Your task to perform on an android device: Add "acer predator" to the cart on bestbuy.com Image 0: 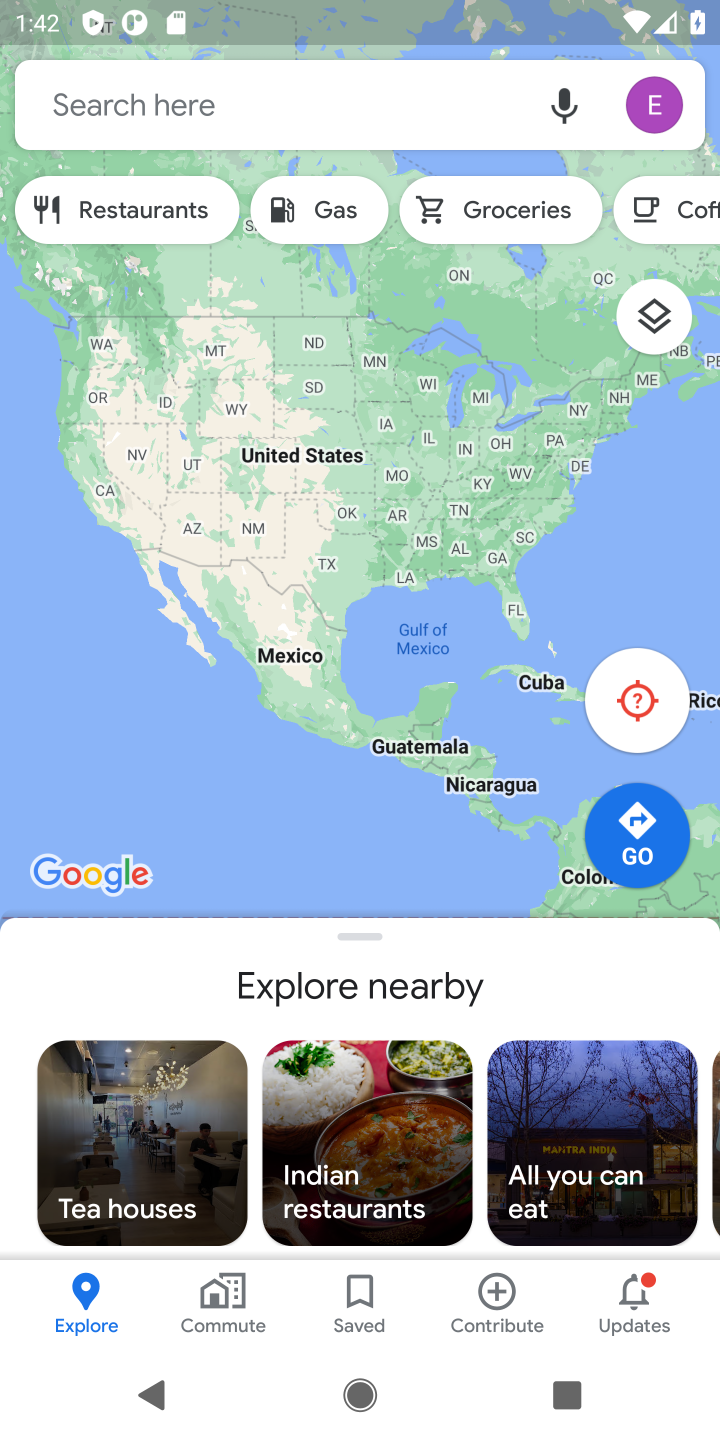
Step 0: press home button
Your task to perform on an android device: Add "acer predator" to the cart on bestbuy.com Image 1: 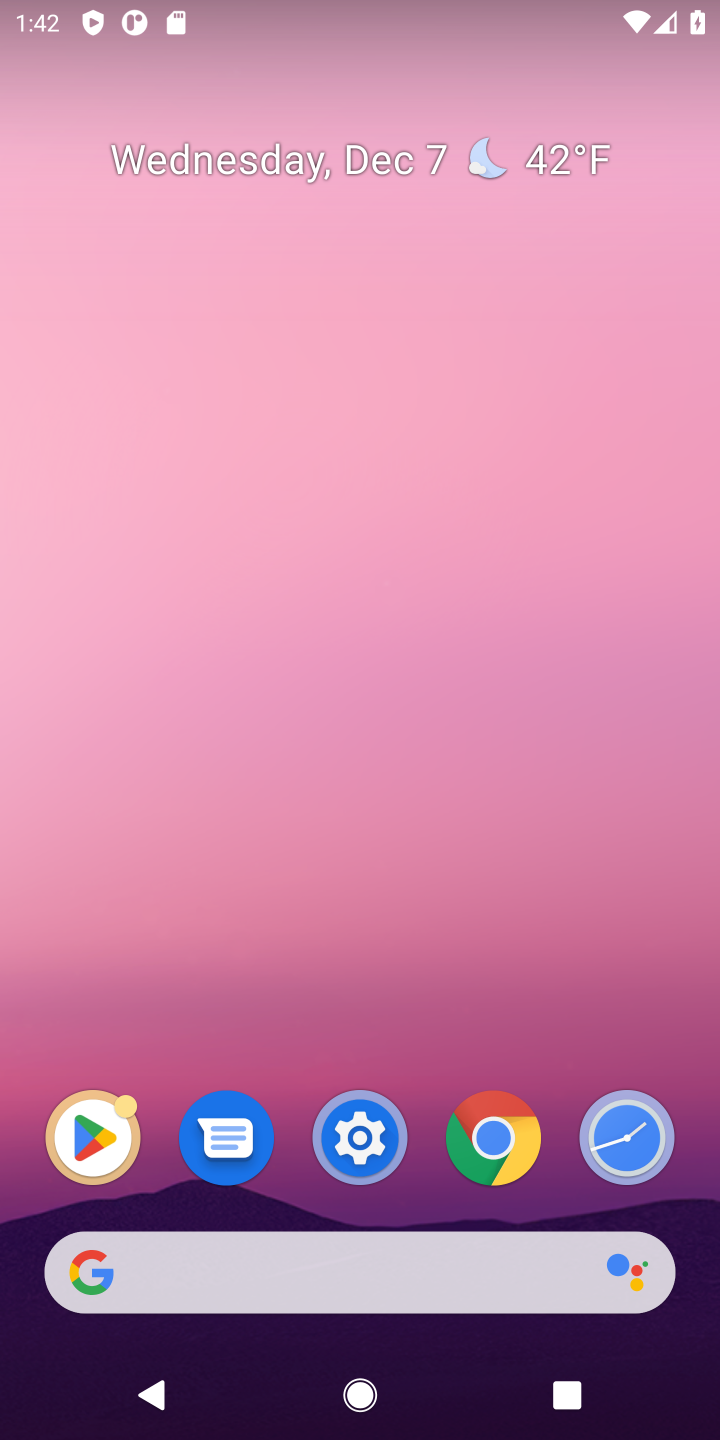
Step 1: click (339, 1256)
Your task to perform on an android device: Add "acer predator" to the cart on bestbuy.com Image 2: 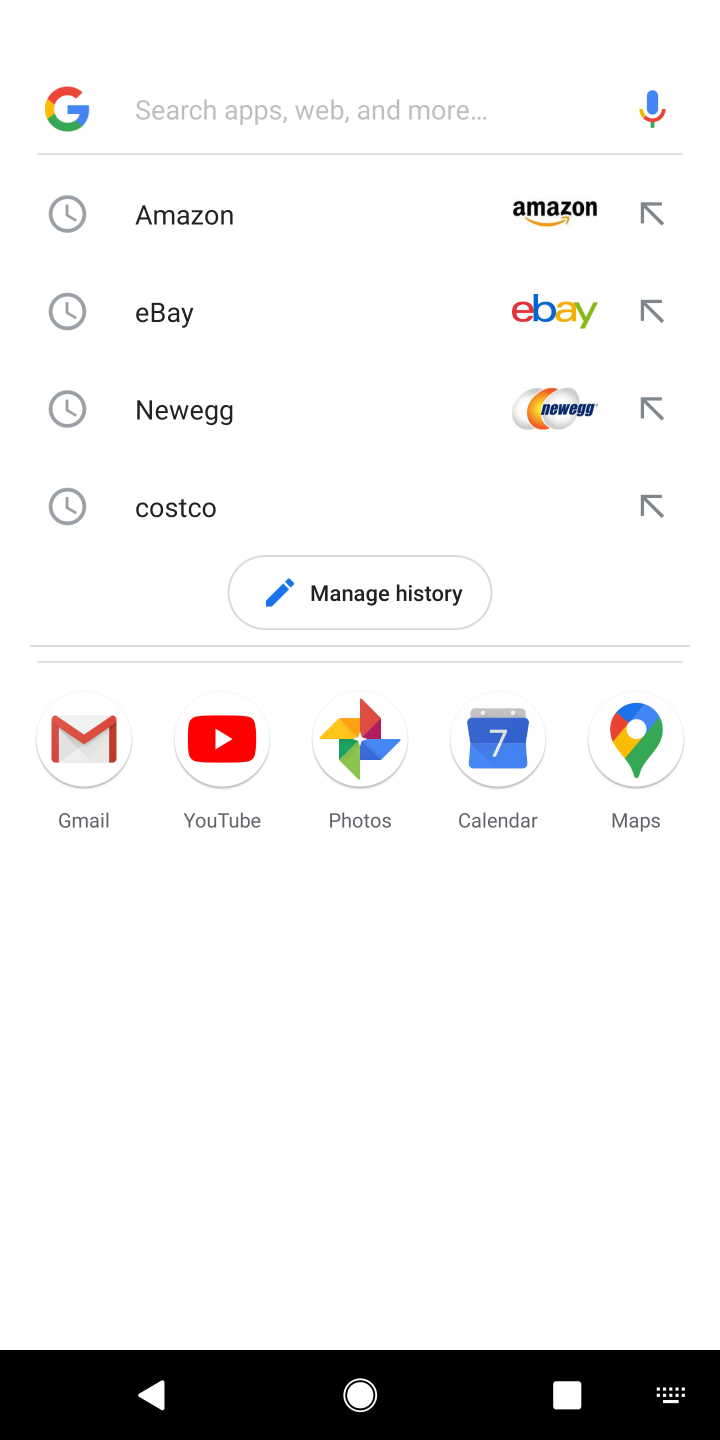
Step 2: type "bestbuy"
Your task to perform on an android device: Add "acer predator" to the cart on bestbuy.com Image 3: 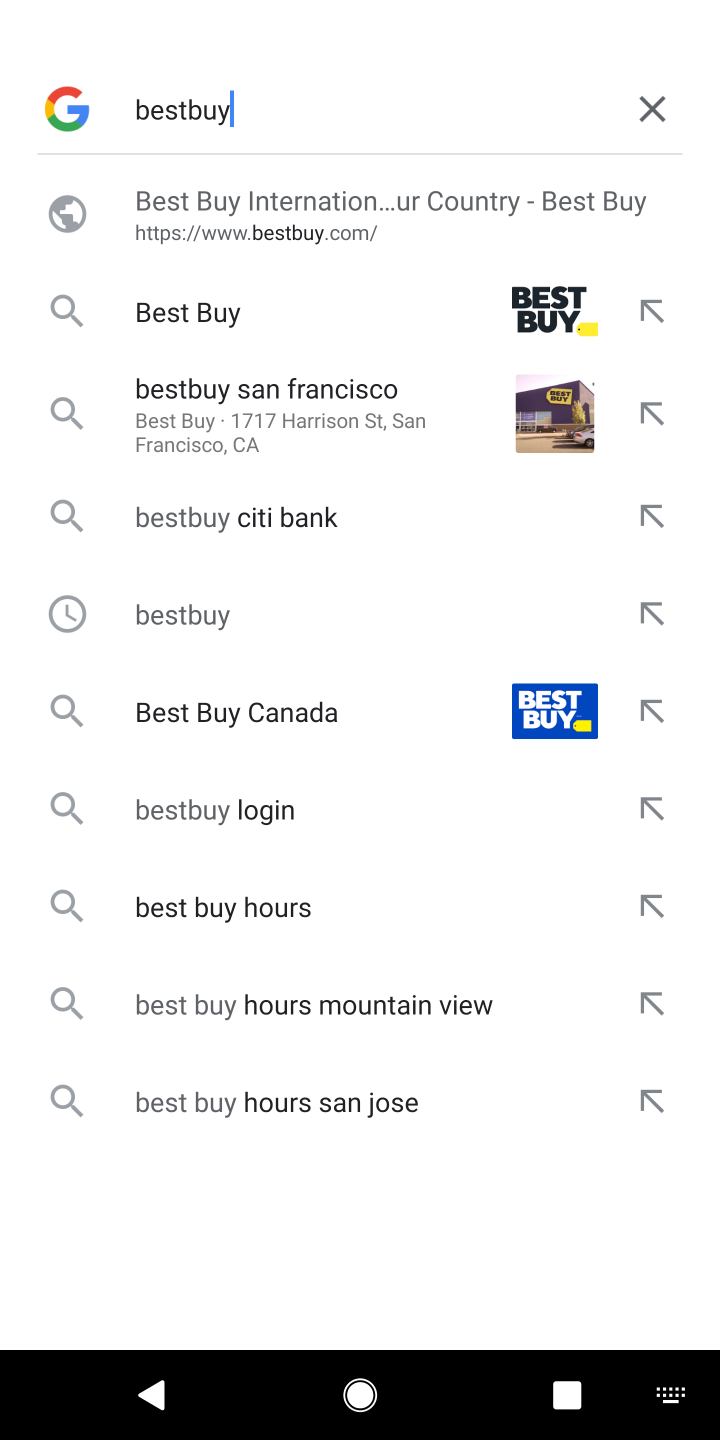
Step 3: click (267, 251)
Your task to perform on an android device: Add "acer predator" to the cart on bestbuy.com Image 4: 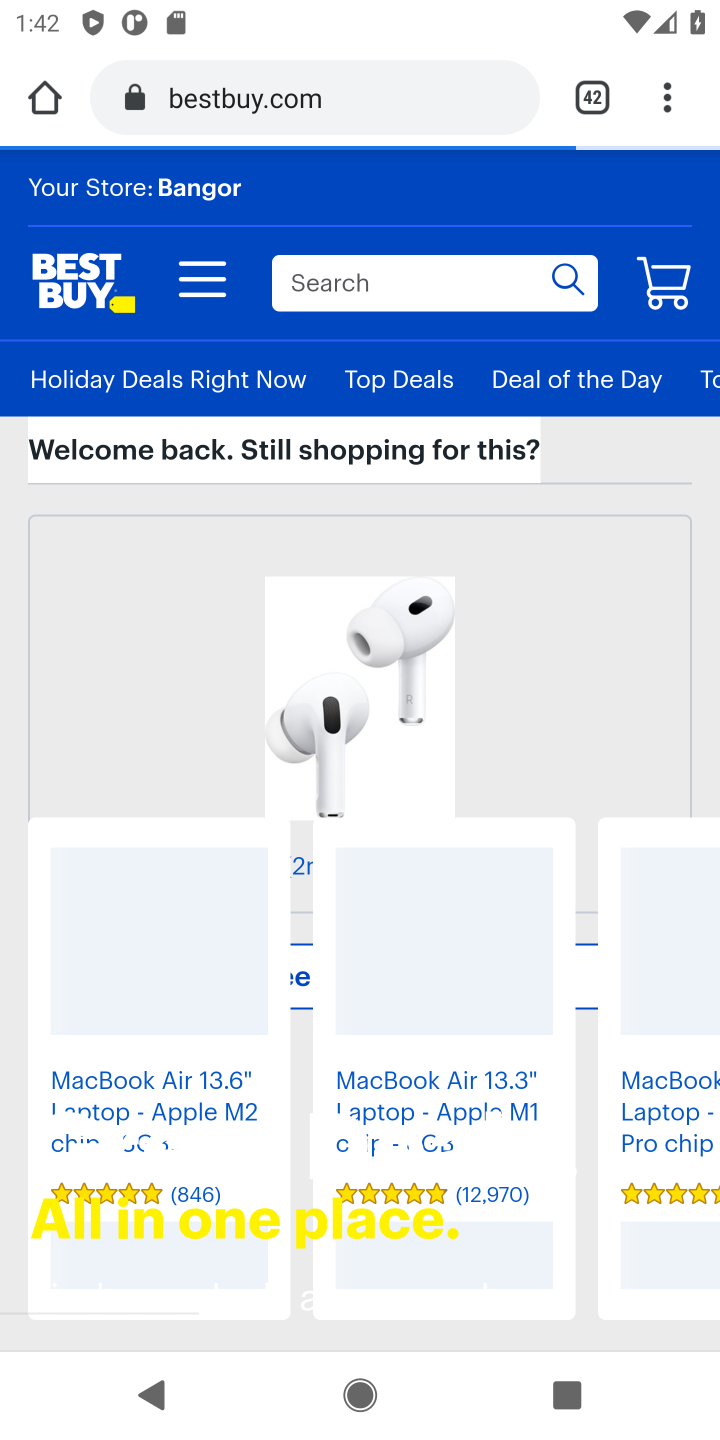
Step 4: click (322, 296)
Your task to perform on an android device: Add "acer predator" to the cart on bestbuy.com Image 5: 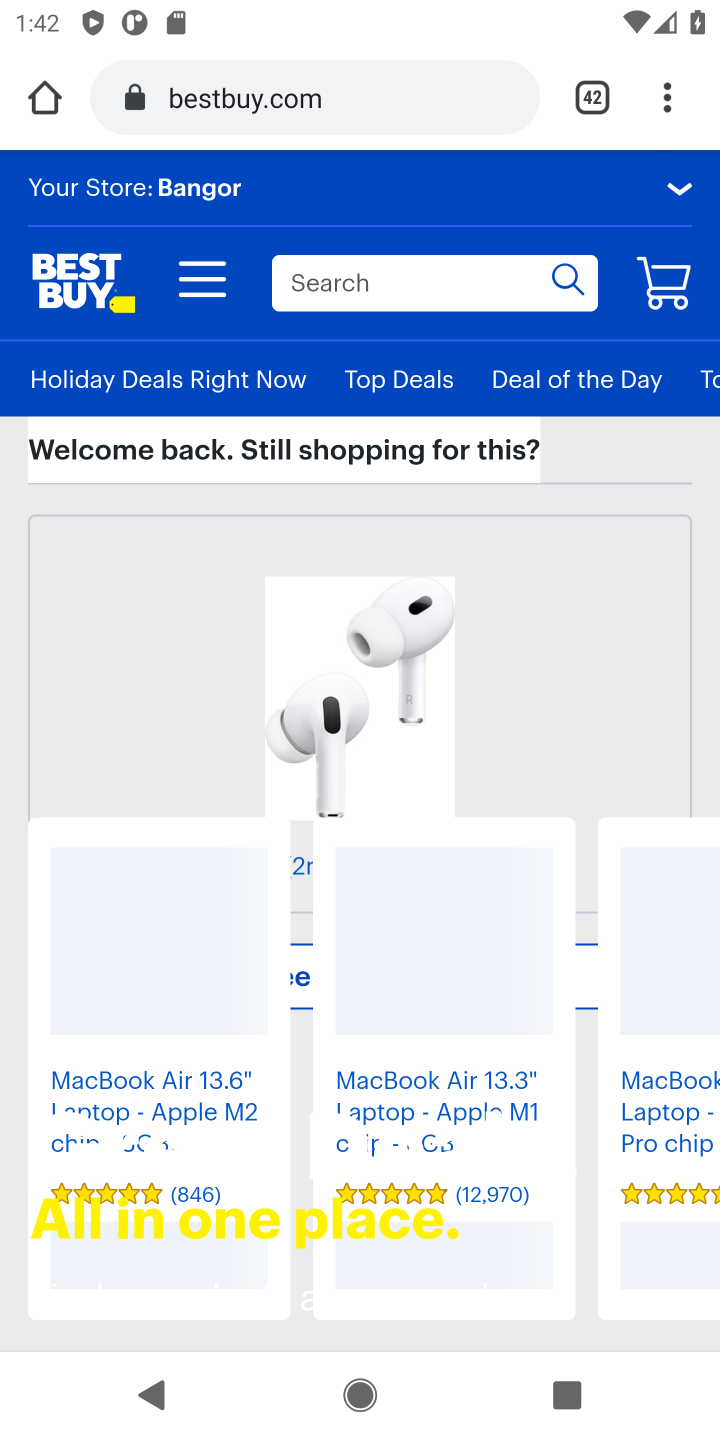
Step 5: type "acer predator"
Your task to perform on an android device: Add "acer predator" to the cart on bestbuy.com Image 6: 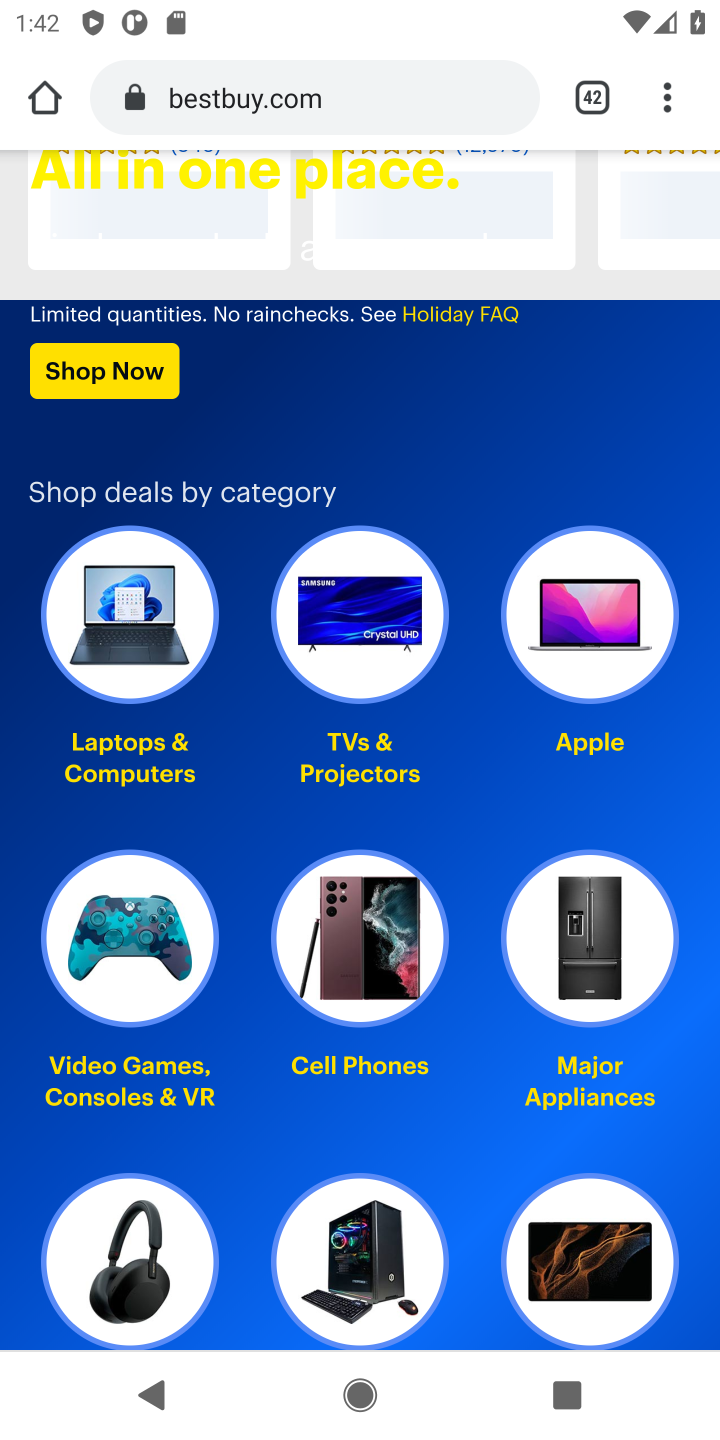
Step 6: task complete